Your task to perform on an android device: open the mobile data screen to see how much data has been used Image 0: 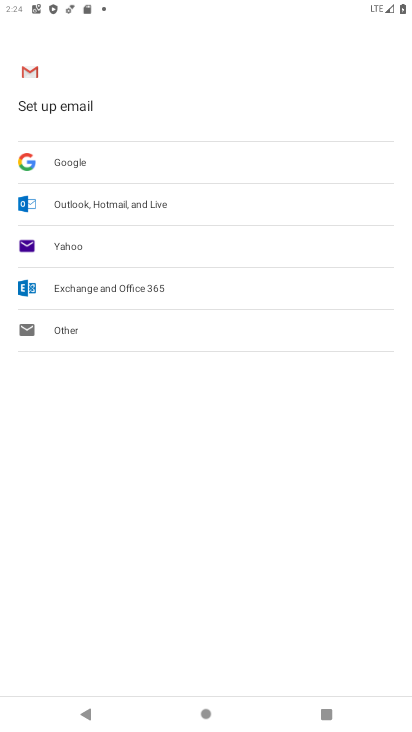
Step 0: press home button
Your task to perform on an android device: open the mobile data screen to see how much data has been used Image 1: 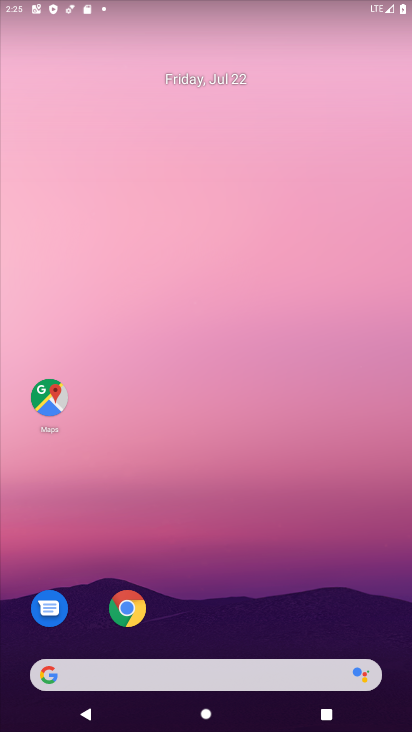
Step 1: drag from (400, 698) to (349, 82)
Your task to perform on an android device: open the mobile data screen to see how much data has been used Image 2: 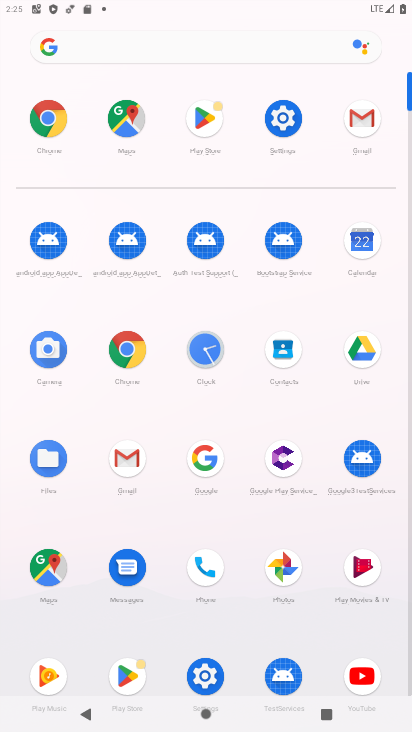
Step 2: click (284, 115)
Your task to perform on an android device: open the mobile data screen to see how much data has been used Image 3: 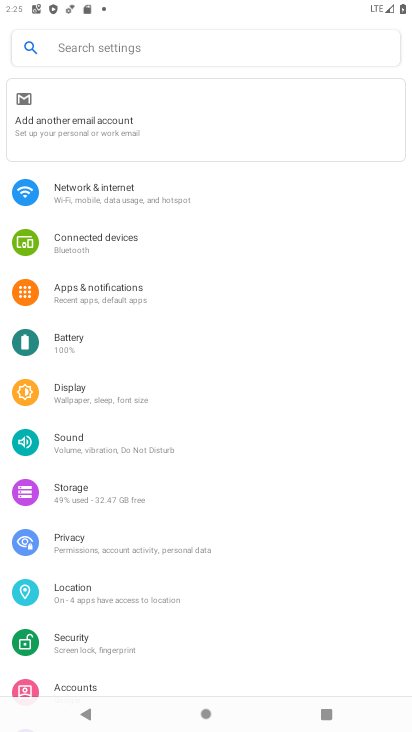
Step 3: click (78, 193)
Your task to perform on an android device: open the mobile data screen to see how much data has been used Image 4: 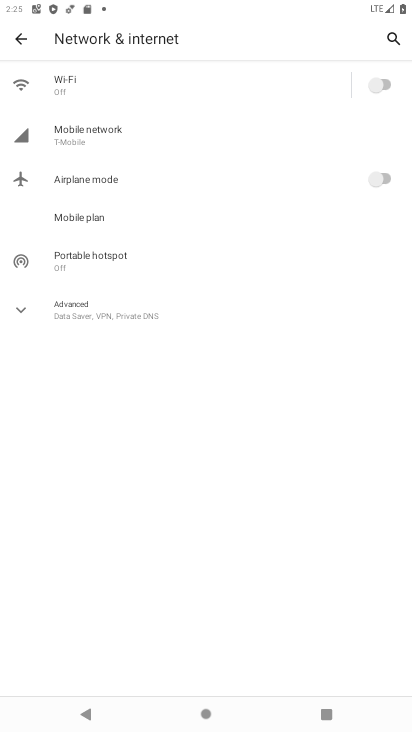
Step 4: click (72, 132)
Your task to perform on an android device: open the mobile data screen to see how much data has been used Image 5: 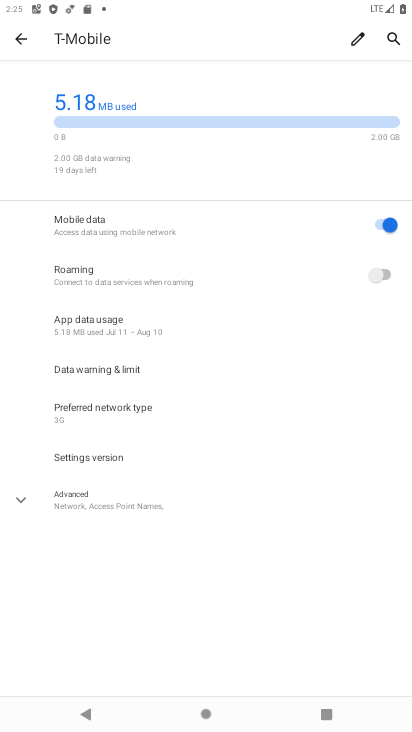
Step 5: task complete